Your task to perform on an android device: turn off data saver in the chrome app Image 0: 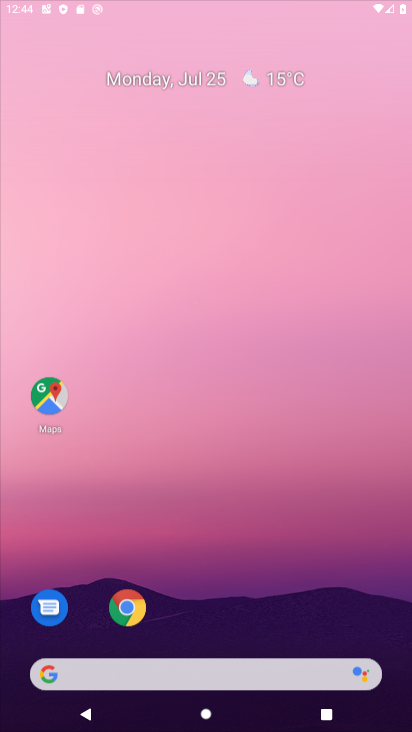
Step 0: click (303, 96)
Your task to perform on an android device: turn off data saver in the chrome app Image 1: 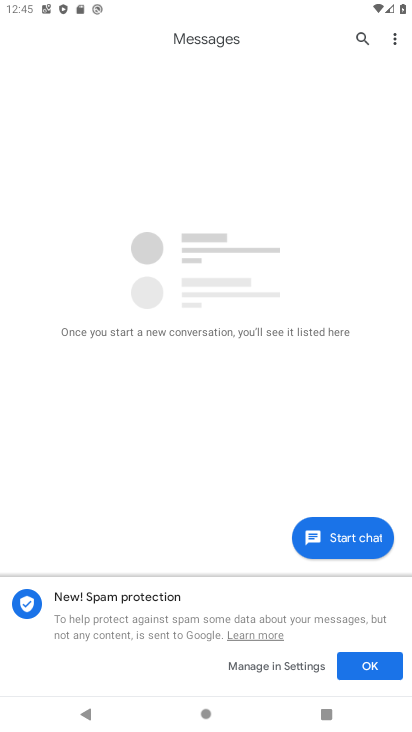
Step 1: press home button
Your task to perform on an android device: turn off data saver in the chrome app Image 2: 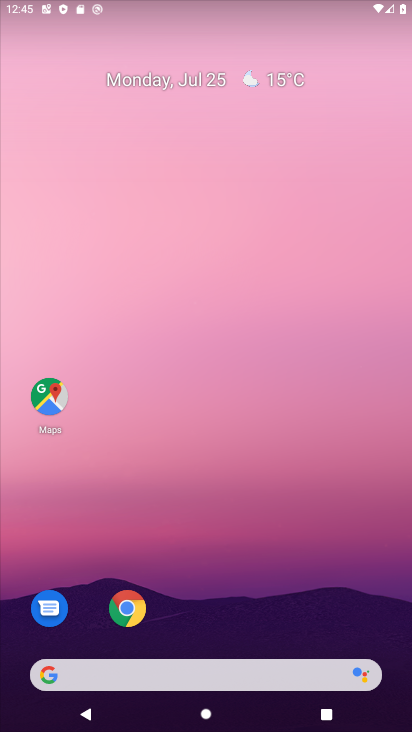
Step 2: drag from (241, 363) to (293, 42)
Your task to perform on an android device: turn off data saver in the chrome app Image 3: 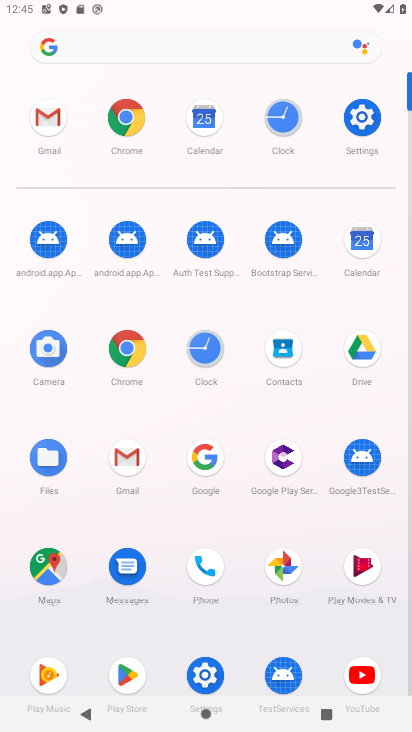
Step 3: click (133, 367)
Your task to perform on an android device: turn off data saver in the chrome app Image 4: 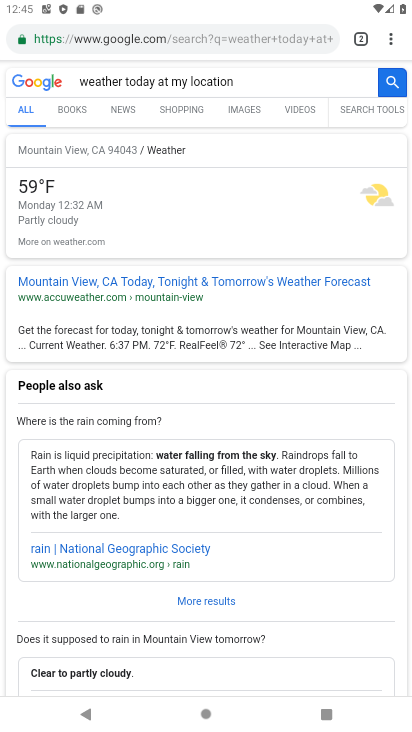
Step 4: click (390, 35)
Your task to perform on an android device: turn off data saver in the chrome app Image 5: 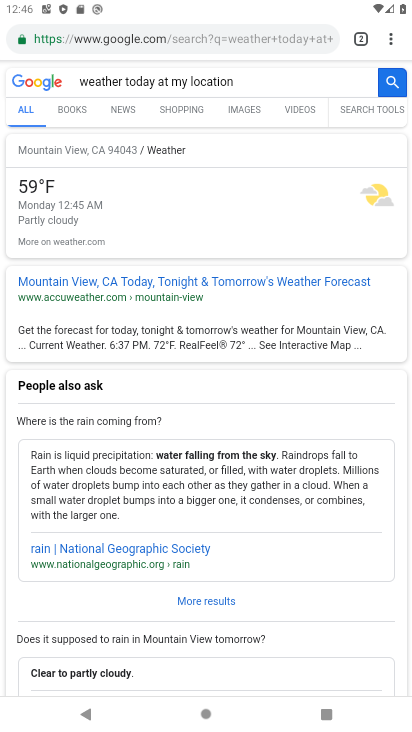
Step 5: click (394, 33)
Your task to perform on an android device: turn off data saver in the chrome app Image 6: 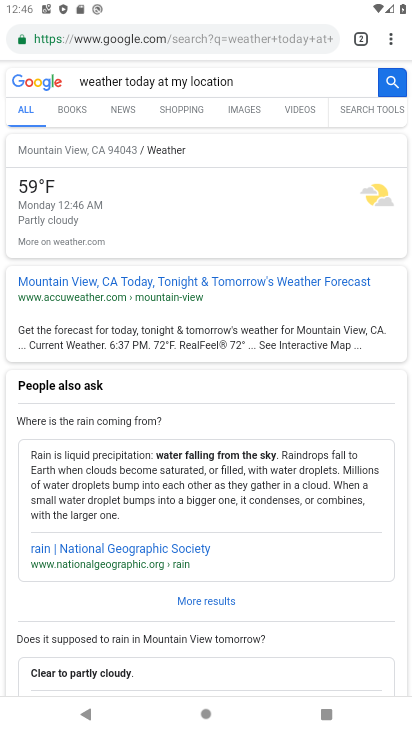
Step 6: click (394, 43)
Your task to perform on an android device: turn off data saver in the chrome app Image 7: 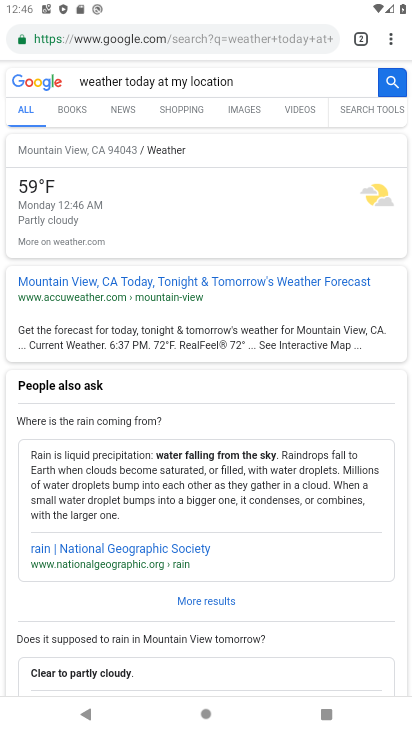
Step 7: click (385, 38)
Your task to perform on an android device: turn off data saver in the chrome app Image 8: 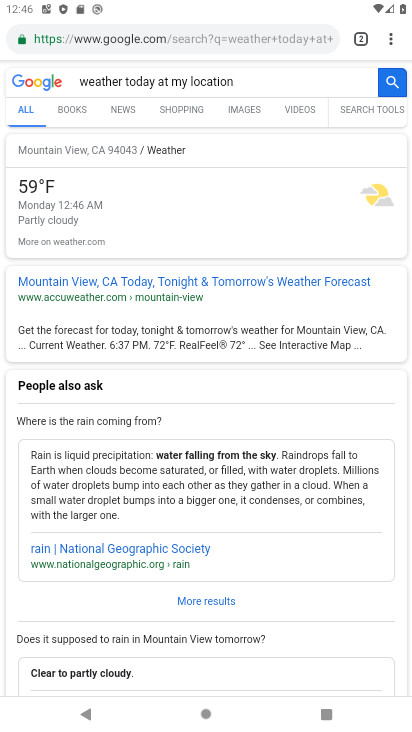
Step 8: click (397, 43)
Your task to perform on an android device: turn off data saver in the chrome app Image 9: 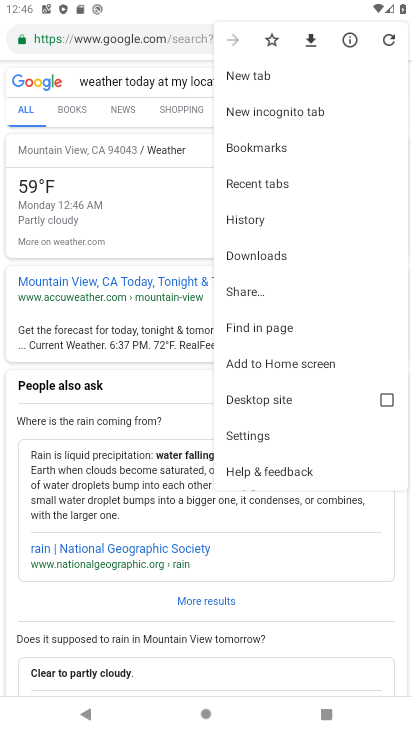
Step 9: click (237, 434)
Your task to perform on an android device: turn off data saver in the chrome app Image 10: 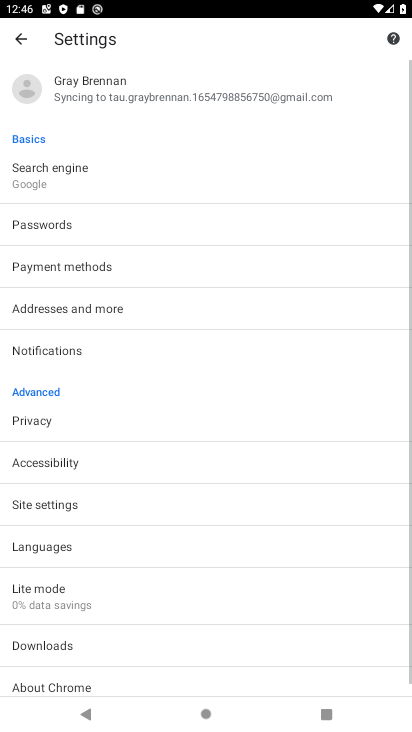
Step 10: click (108, 595)
Your task to perform on an android device: turn off data saver in the chrome app Image 11: 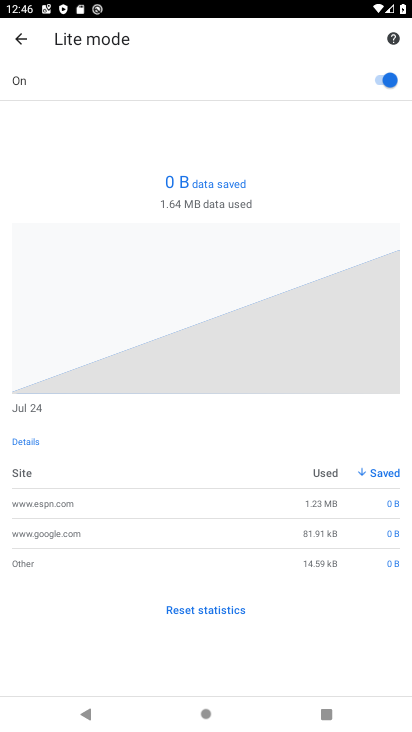
Step 11: click (400, 67)
Your task to perform on an android device: turn off data saver in the chrome app Image 12: 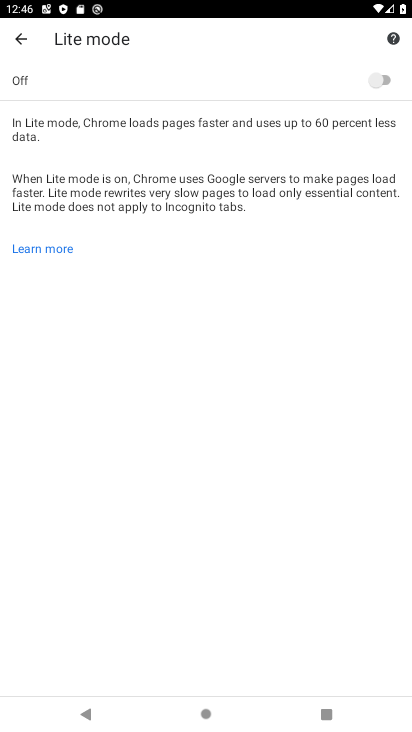
Step 12: task complete